Your task to perform on an android device: change the clock display to digital Image 0: 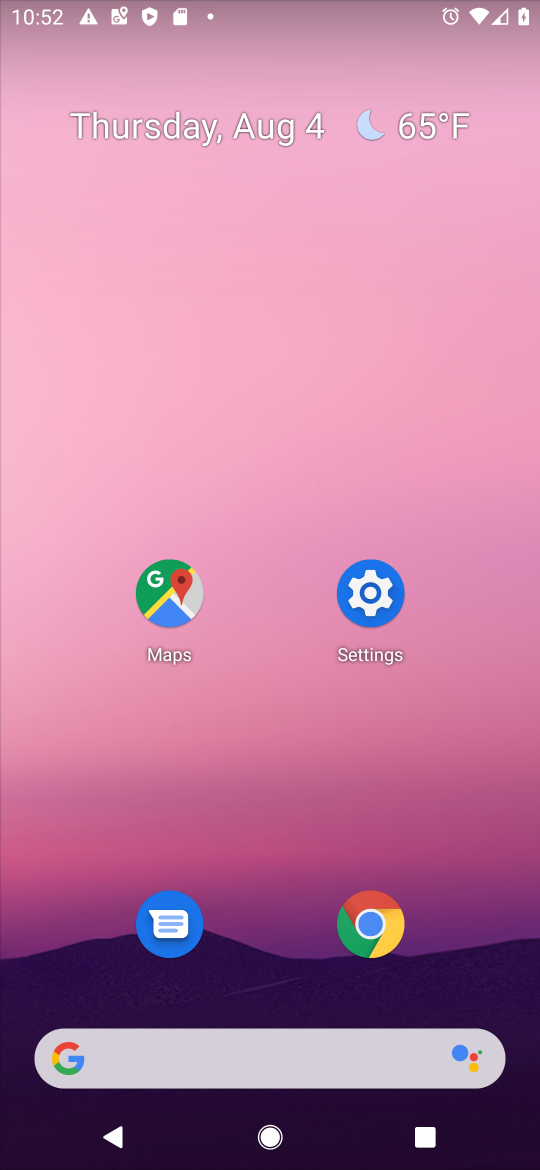
Step 0: press home button
Your task to perform on an android device: change the clock display to digital Image 1: 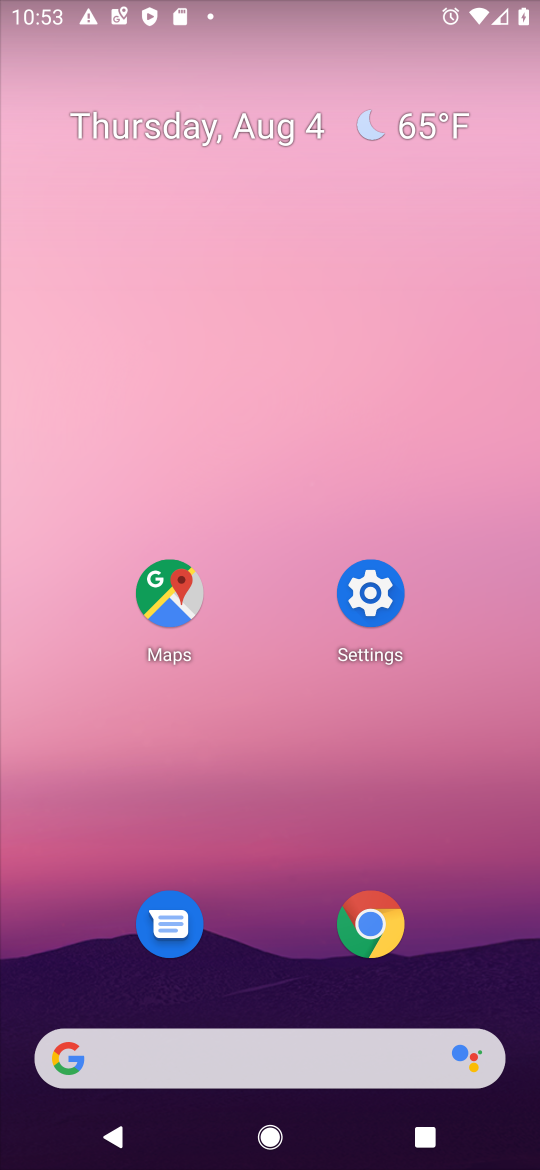
Step 1: drag from (252, 1053) to (405, 103)
Your task to perform on an android device: change the clock display to digital Image 2: 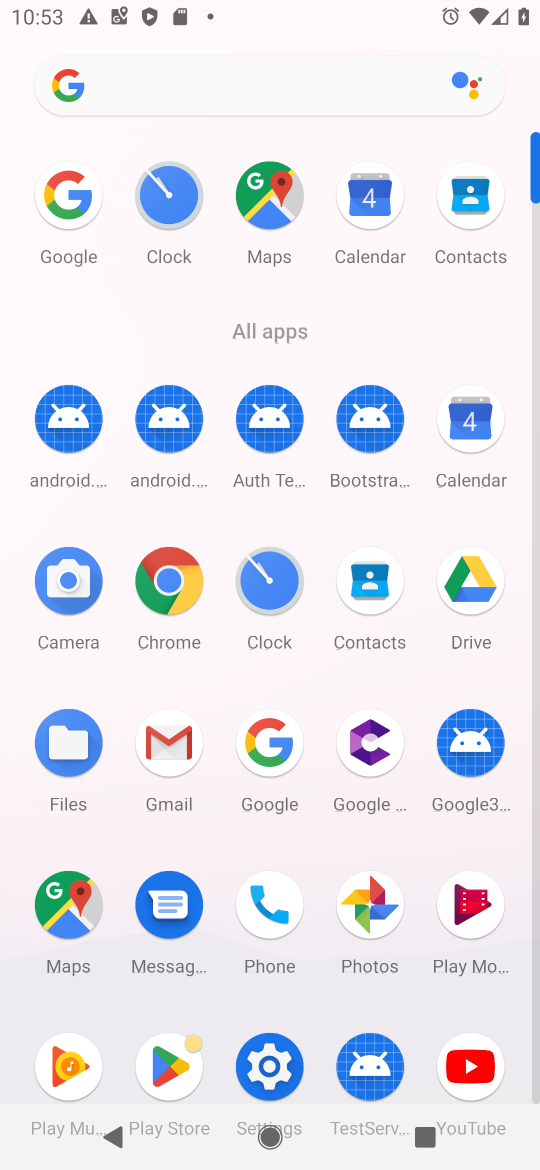
Step 2: click (174, 210)
Your task to perform on an android device: change the clock display to digital Image 3: 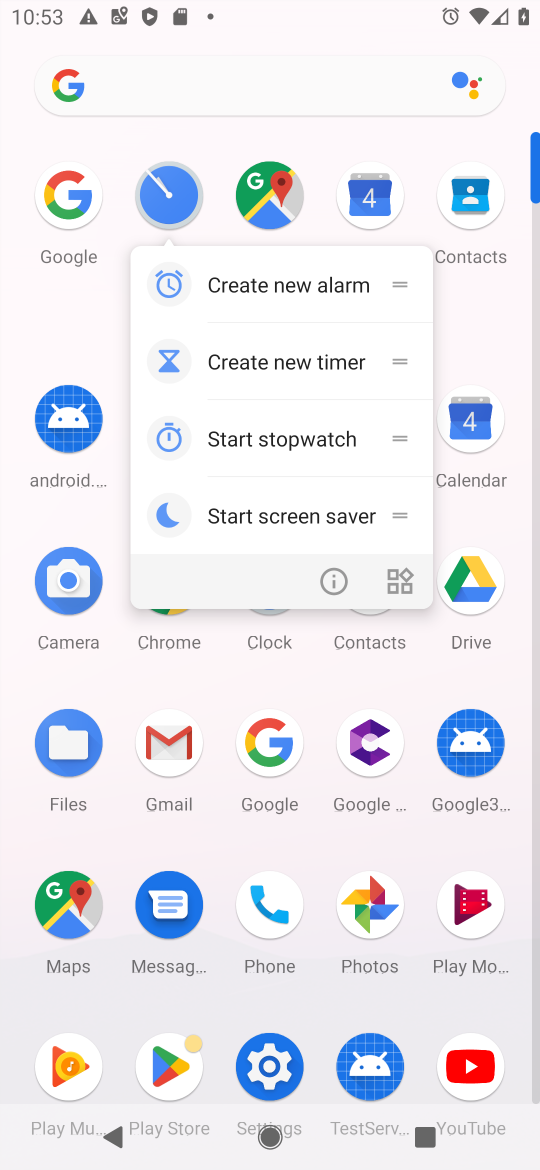
Step 3: click (172, 198)
Your task to perform on an android device: change the clock display to digital Image 4: 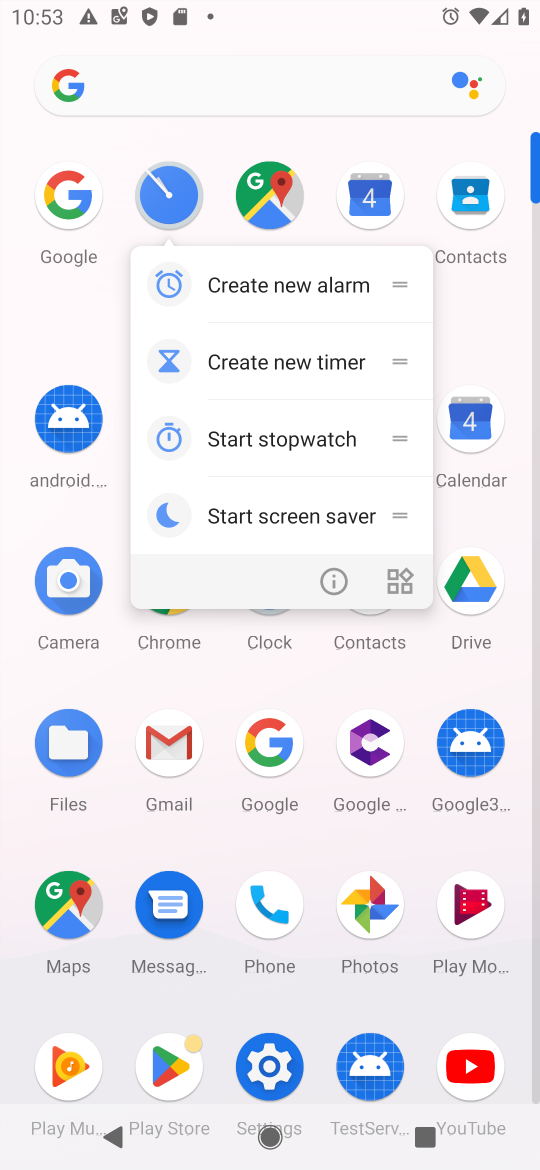
Step 4: click (172, 200)
Your task to perform on an android device: change the clock display to digital Image 5: 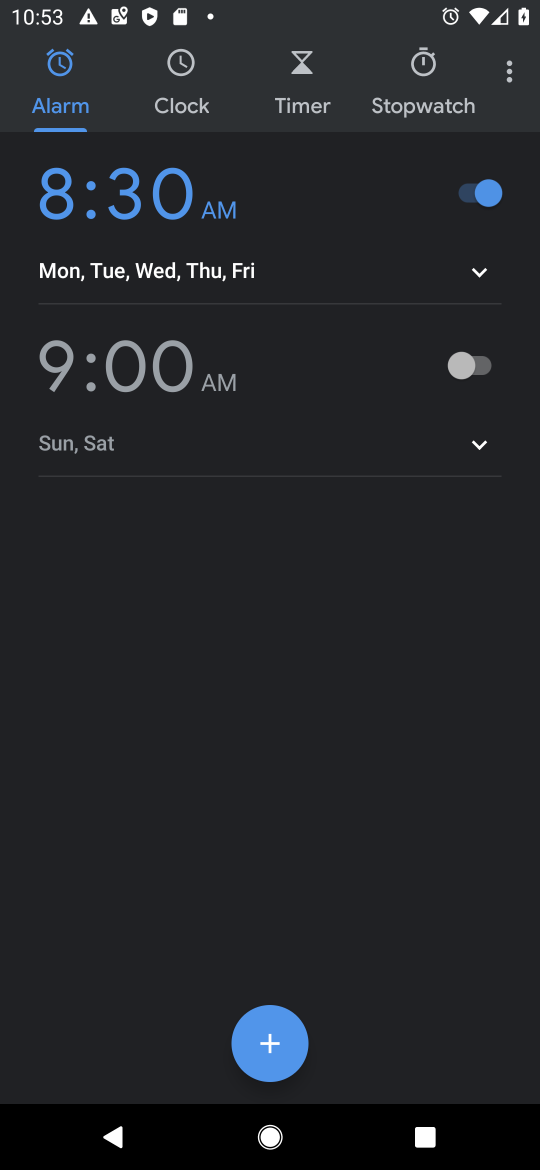
Step 5: click (510, 70)
Your task to perform on an android device: change the clock display to digital Image 6: 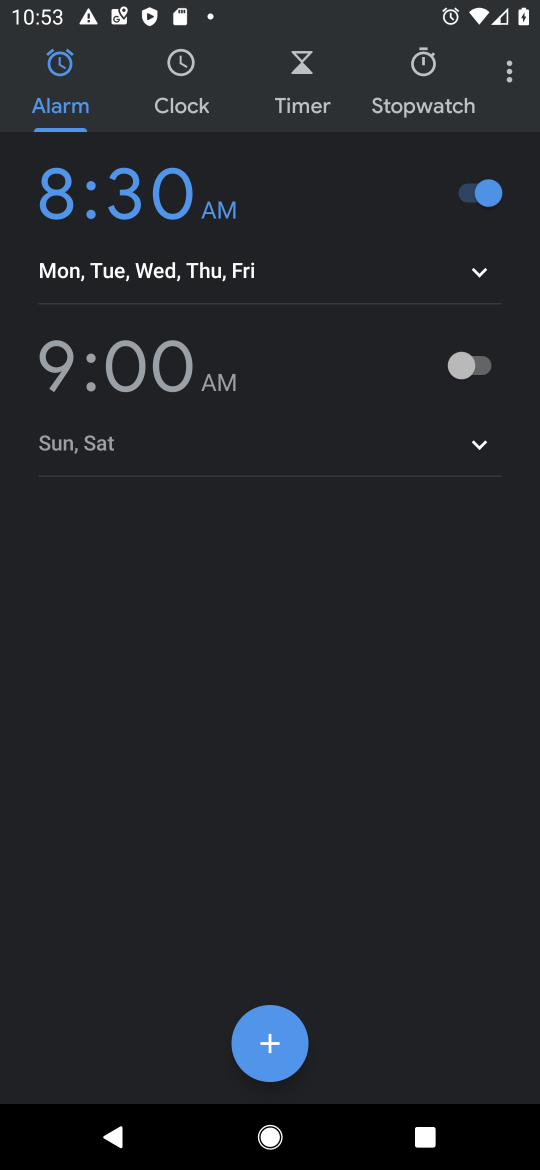
Step 6: click (506, 77)
Your task to perform on an android device: change the clock display to digital Image 7: 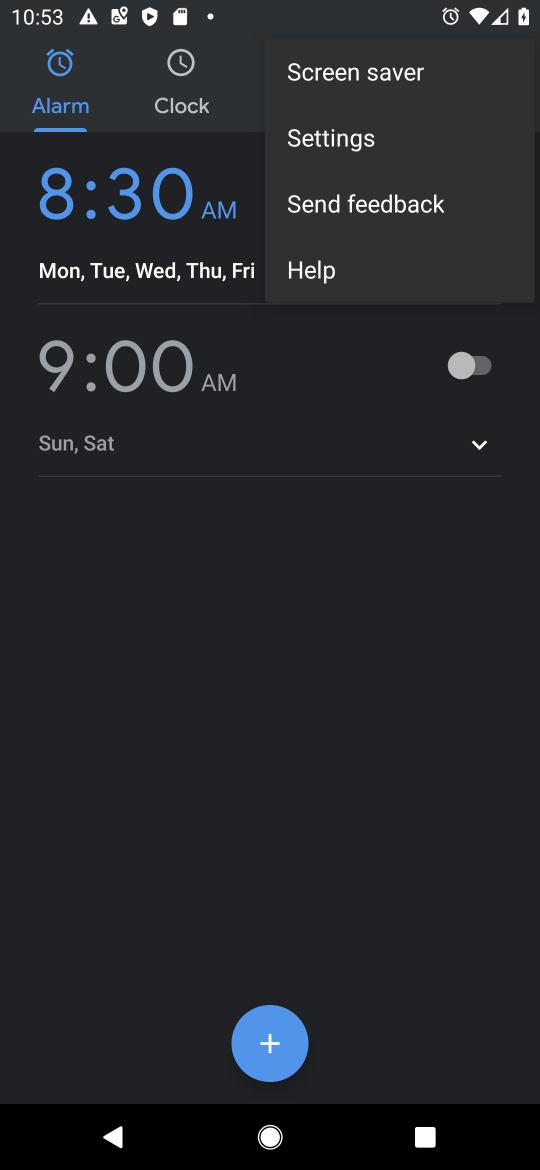
Step 7: click (327, 141)
Your task to perform on an android device: change the clock display to digital Image 8: 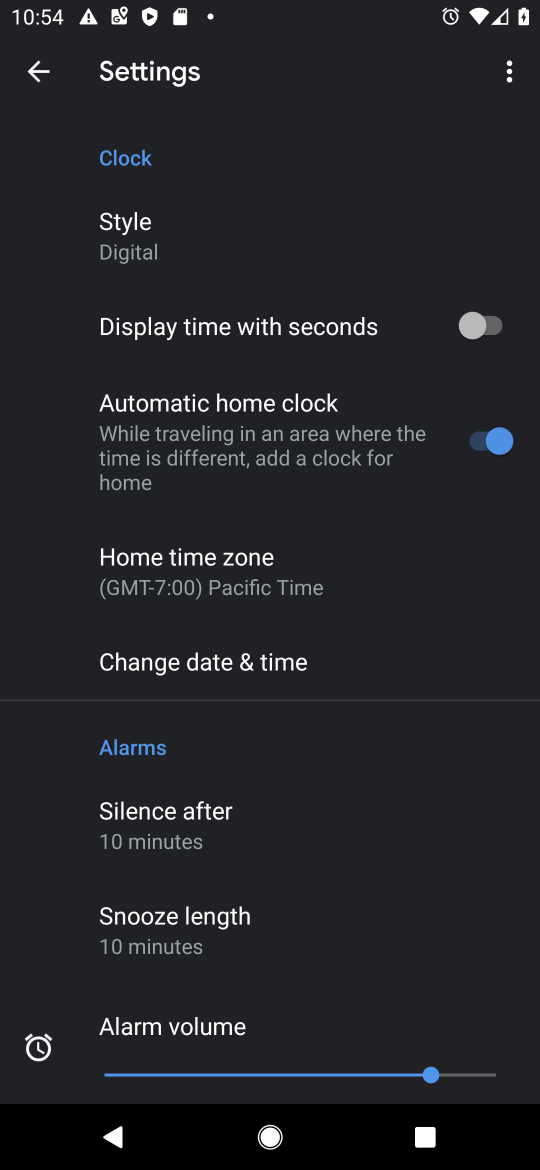
Step 8: task complete